Your task to perform on an android device: Open ESPN.com Image 0: 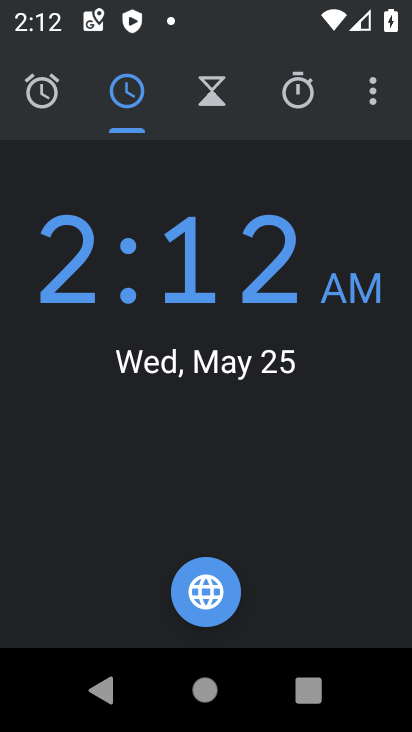
Step 0: press home button
Your task to perform on an android device: Open ESPN.com Image 1: 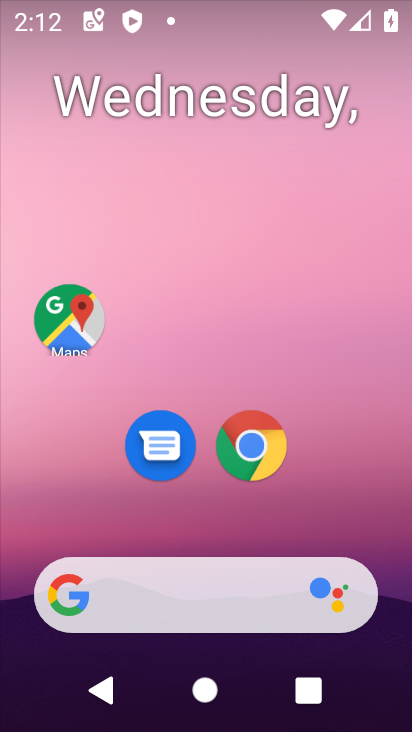
Step 1: click (251, 454)
Your task to perform on an android device: Open ESPN.com Image 2: 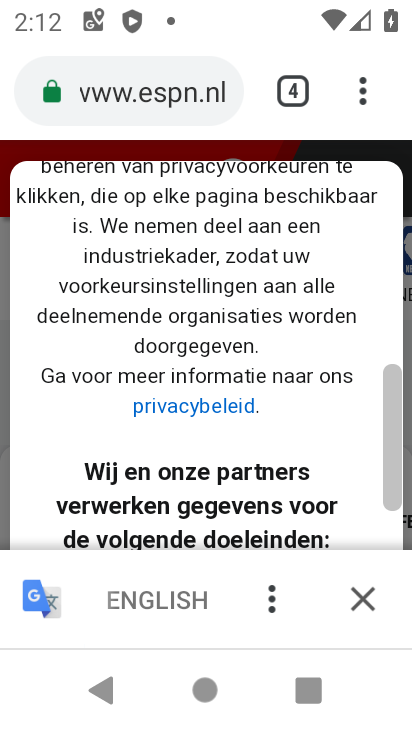
Step 2: task complete